Your task to perform on an android device: Open Chrome and go to settings Image 0: 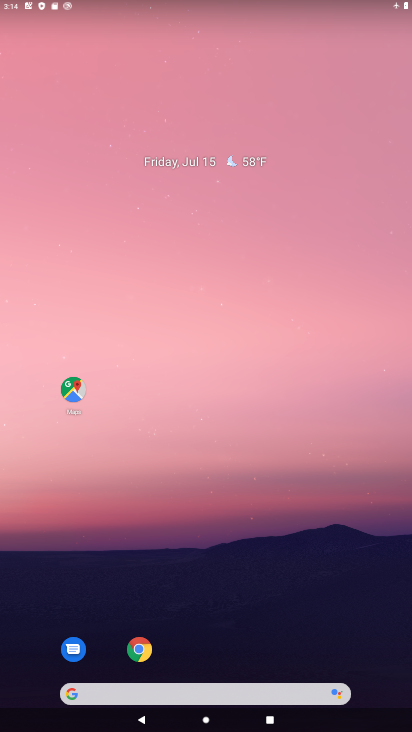
Step 0: drag from (224, 725) to (226, 127)
Your task to perform on an android device: Open Chrome and go to settings Image 1: 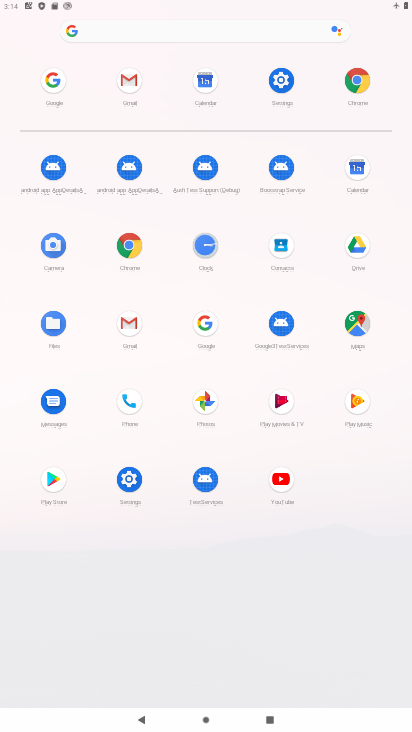
Step 1: click (133, 243)
Your task to perform on an android device: Open Chrome and go to settings Image 2: 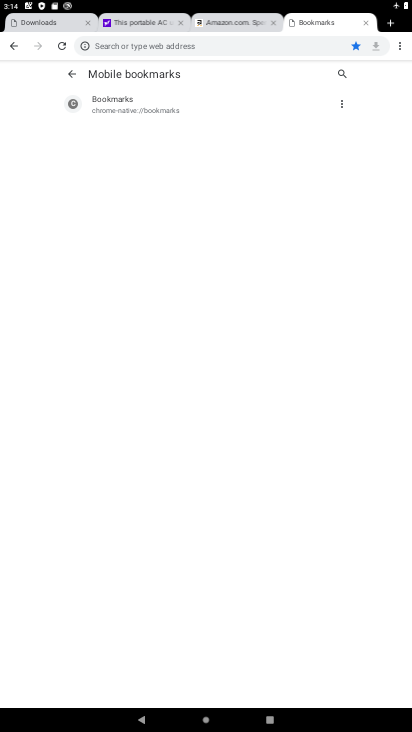
Step 2: click (400, 44)
Your task to perform on an android device: Open Chrome and go to settings Image 3: 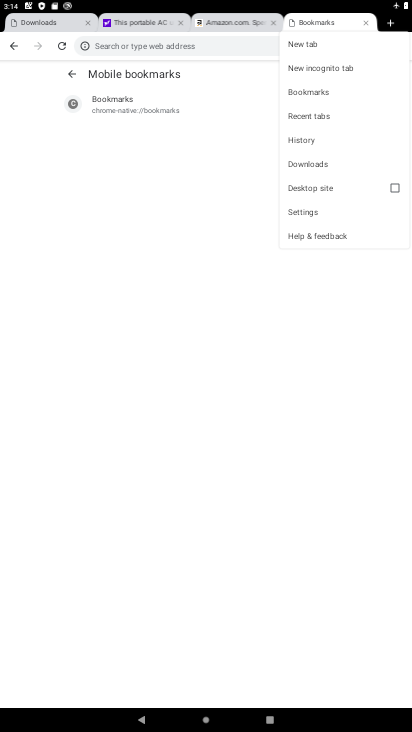
Step 3: click (306, 212)
Your task to perform on an android device: Open Chrome and go to settings Image 4: 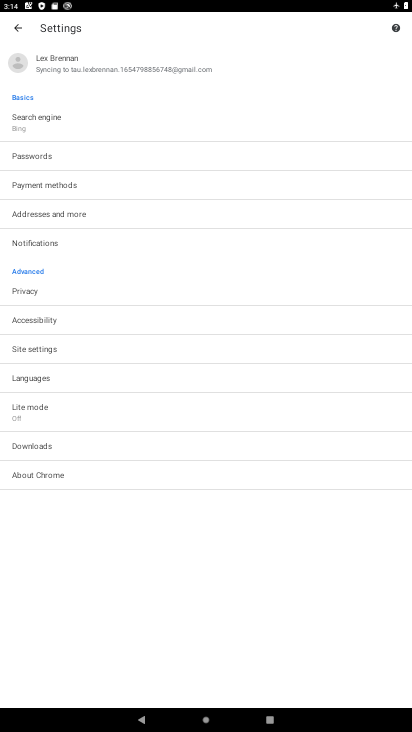
Step 4: task complete